Your task to perform on an android device: Go to ESPN.com Image 0: 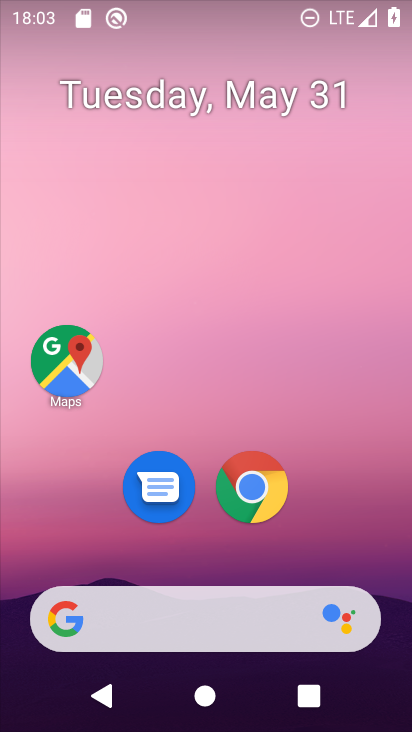
Step 0: click (261, 478)
Your task to perform on an android device: Go to ESPN.com Image 1: 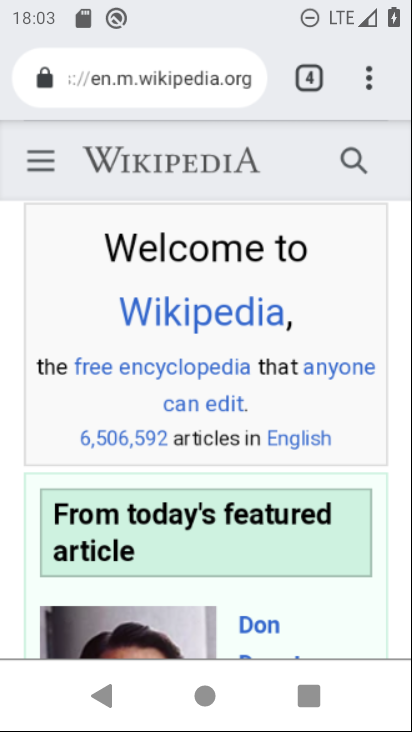
Step 1: click (371, 75)
Your task to perform on an android device: Go to ESPN.com Image 2: 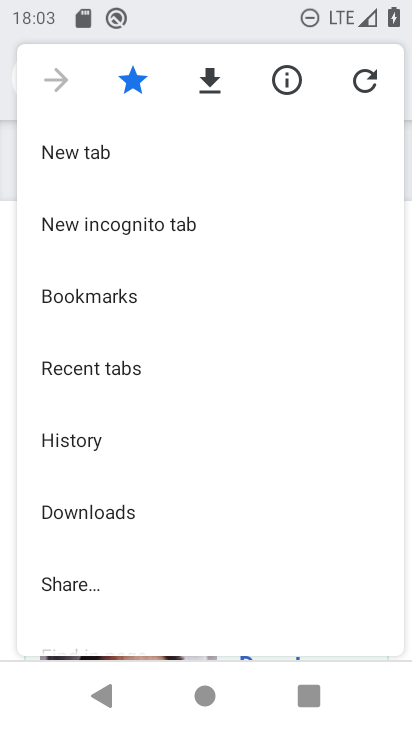
Step 2: click (90, 150)
Your task to perform on an android device: Go to ESPN.com Image 3: 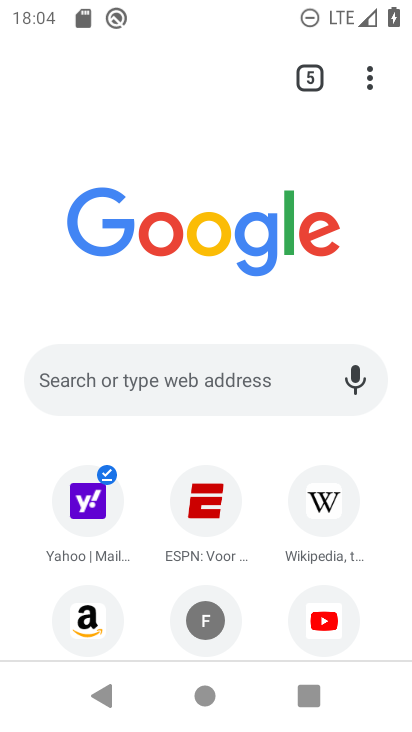
Step 3: click (201, 515)
Your task to perform on an android device: Go to ESPN.com Image 4: 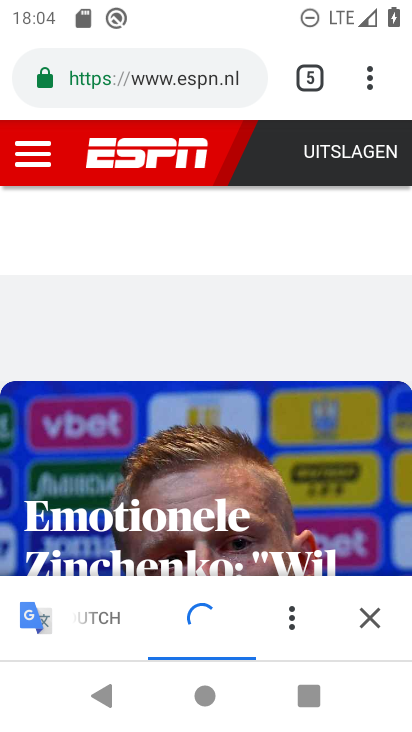
Step 4: task complete